Your task to perform on an android device: Go to Google Image 0: 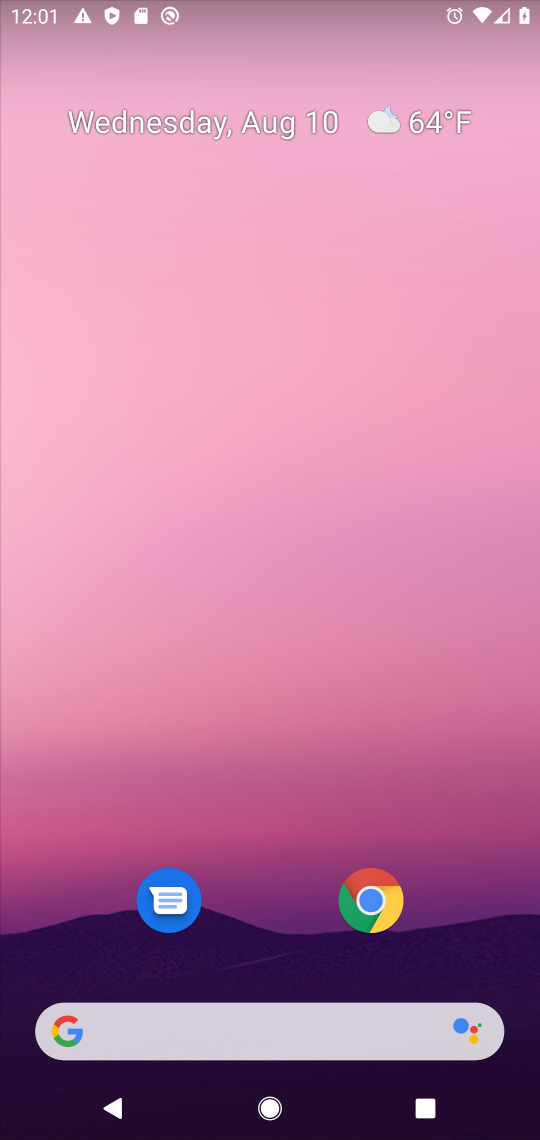
Step 0: click (226, 1032)
Your task to perform on an android device: Go to Google Image 1: 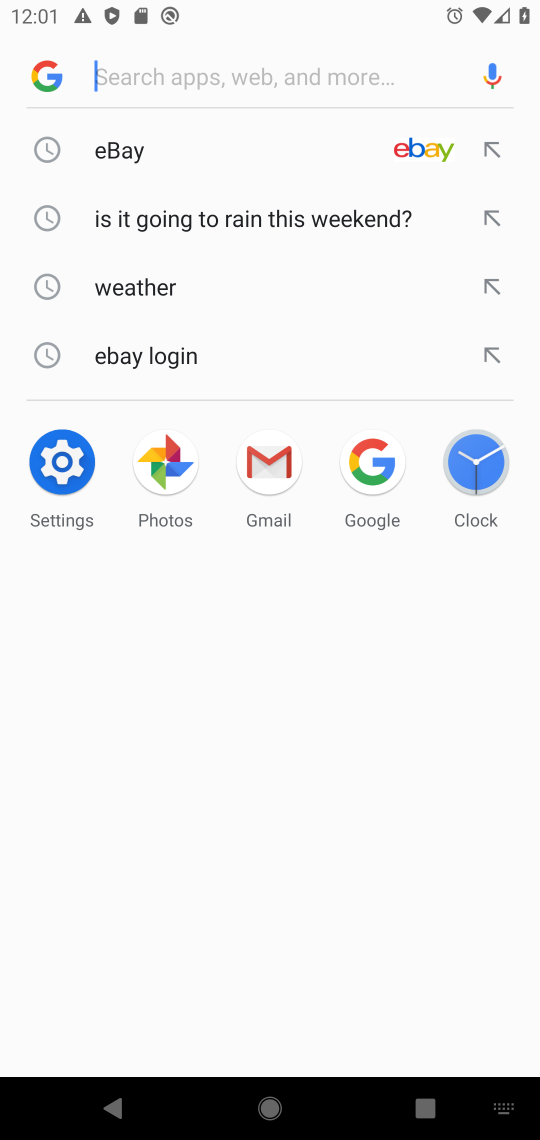
Step 1: click (47, 78)
Your task to perform on an android device: Go to Google Image 2: 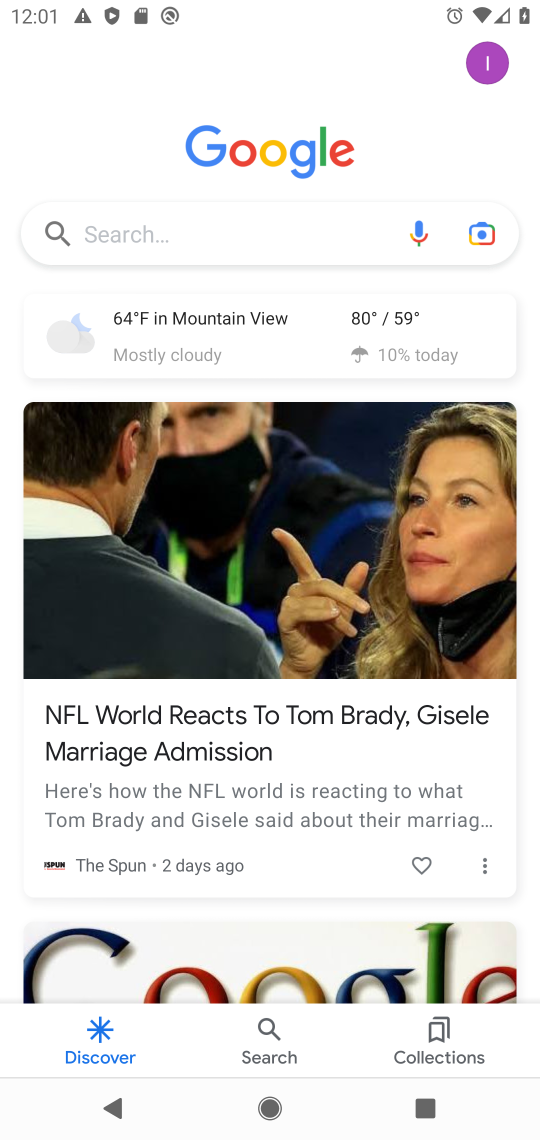
Step 2: task complete